Your task to perform on an android device: toggle sleep mode Image 0: 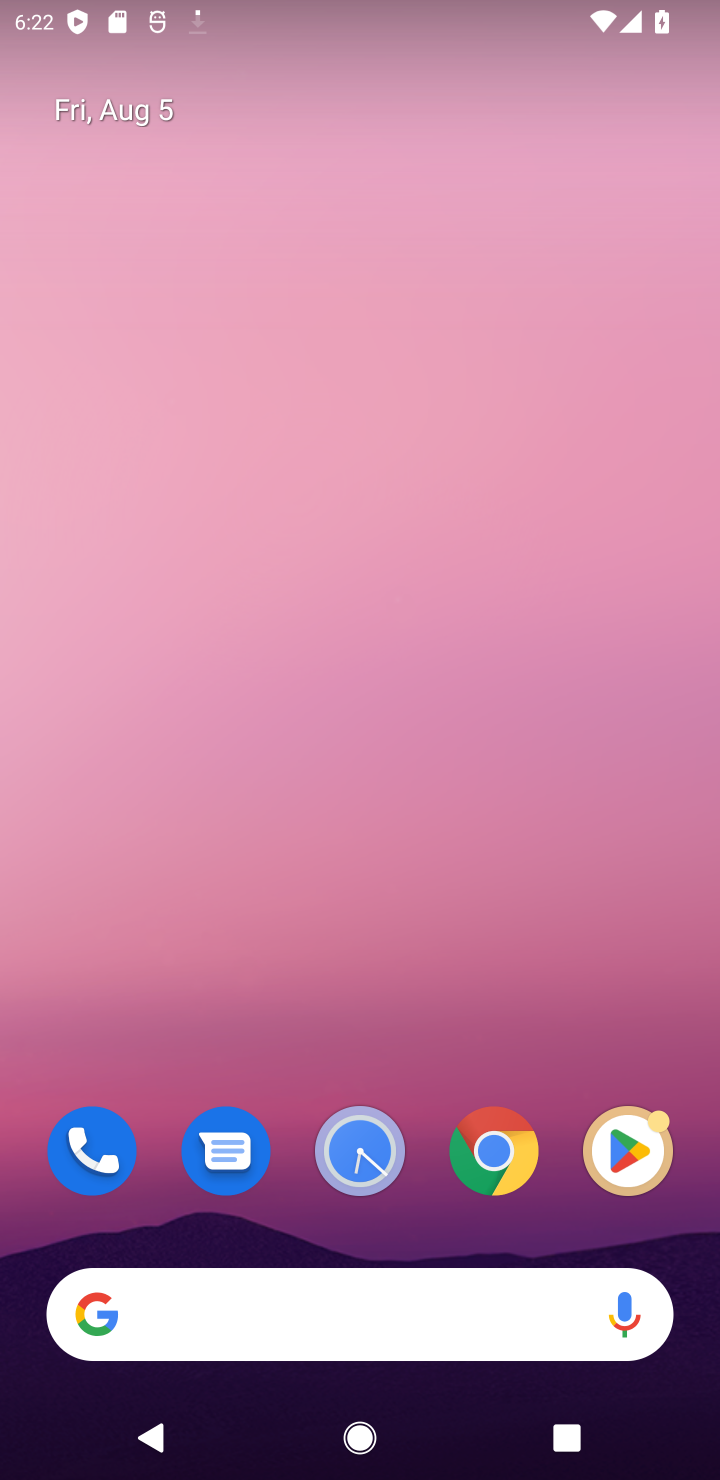
Step 0: drag from (361, 1269) to (587, 648)
Your task to perform on an android device: toggle sleep mode Image 1: 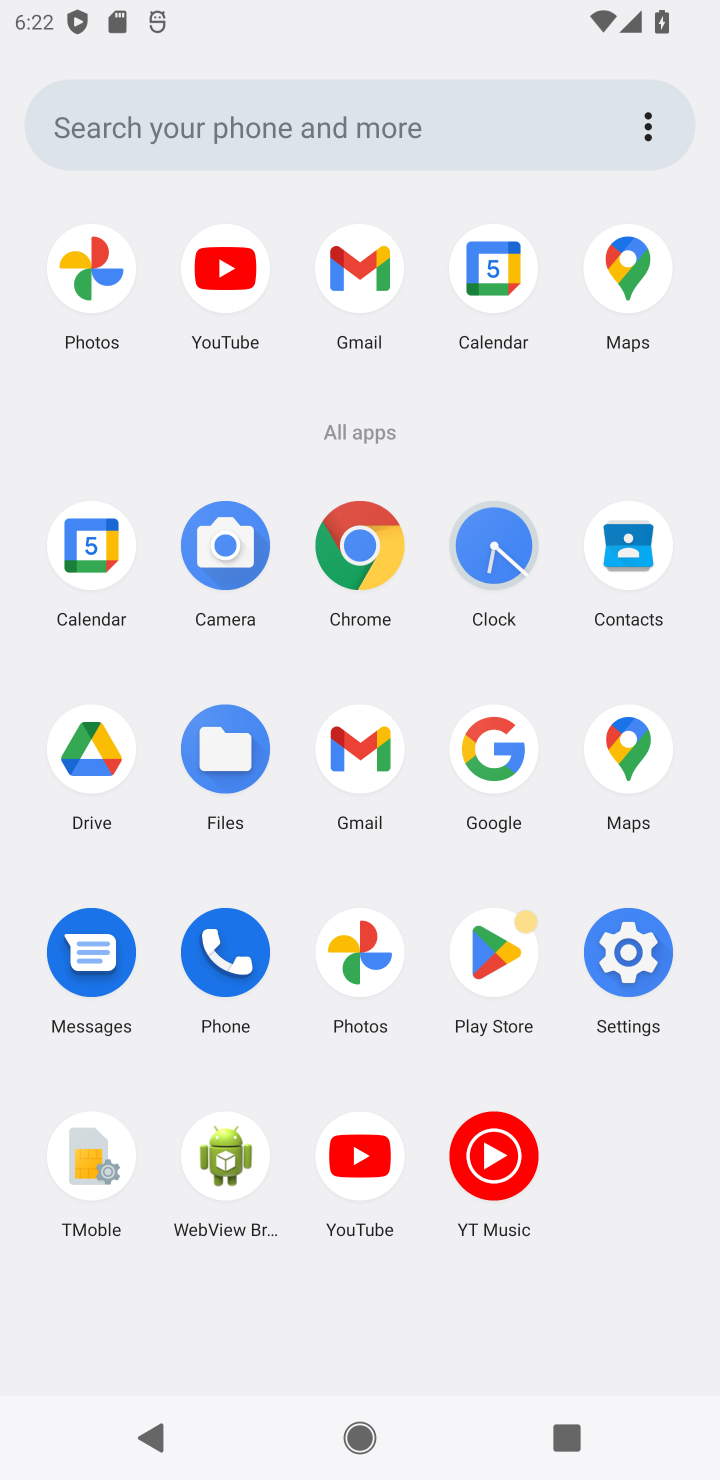
Step 1: click (640, 974)
Your task to perform on an android device: toggle sleep mode Image 2: 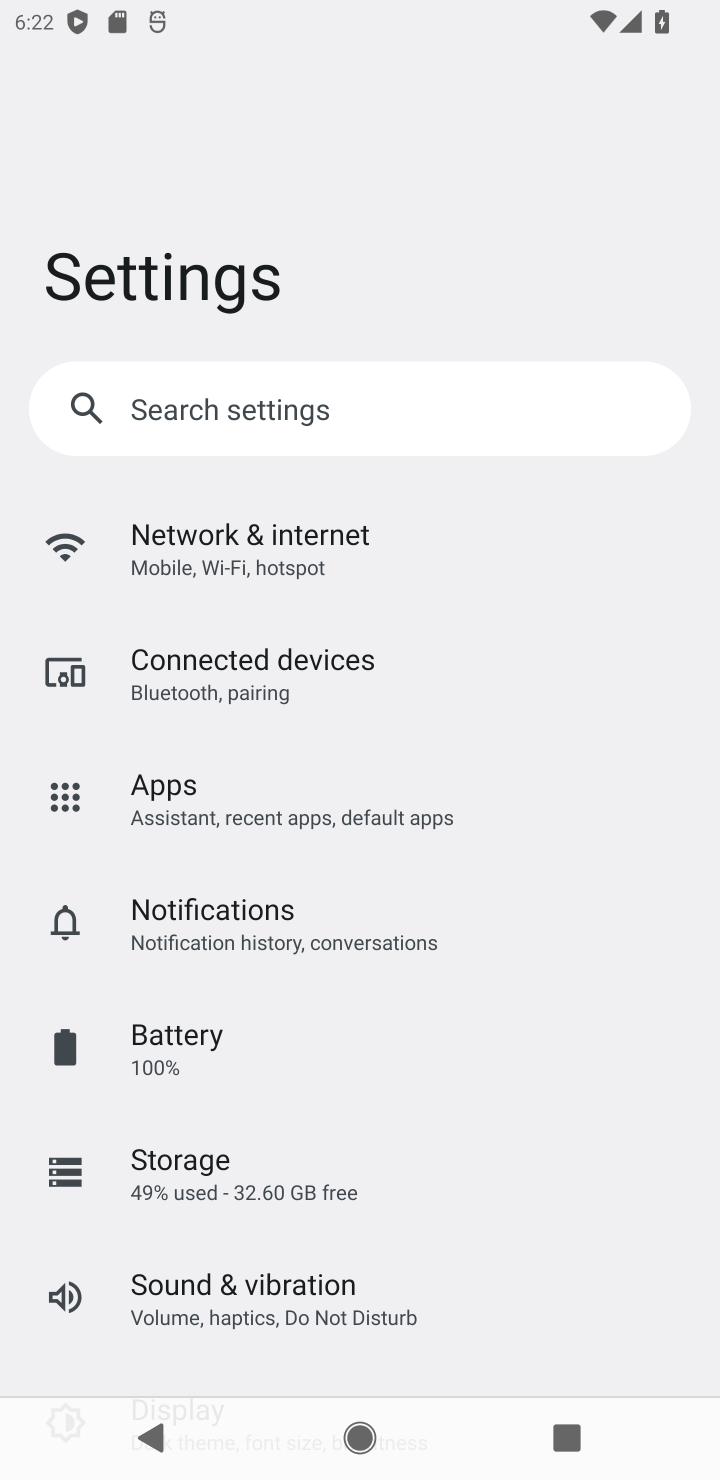
Step 2: drag from (350, 1052) to (332, 488)
Your task to perform on an android device: toggle sleep mode Image 3: 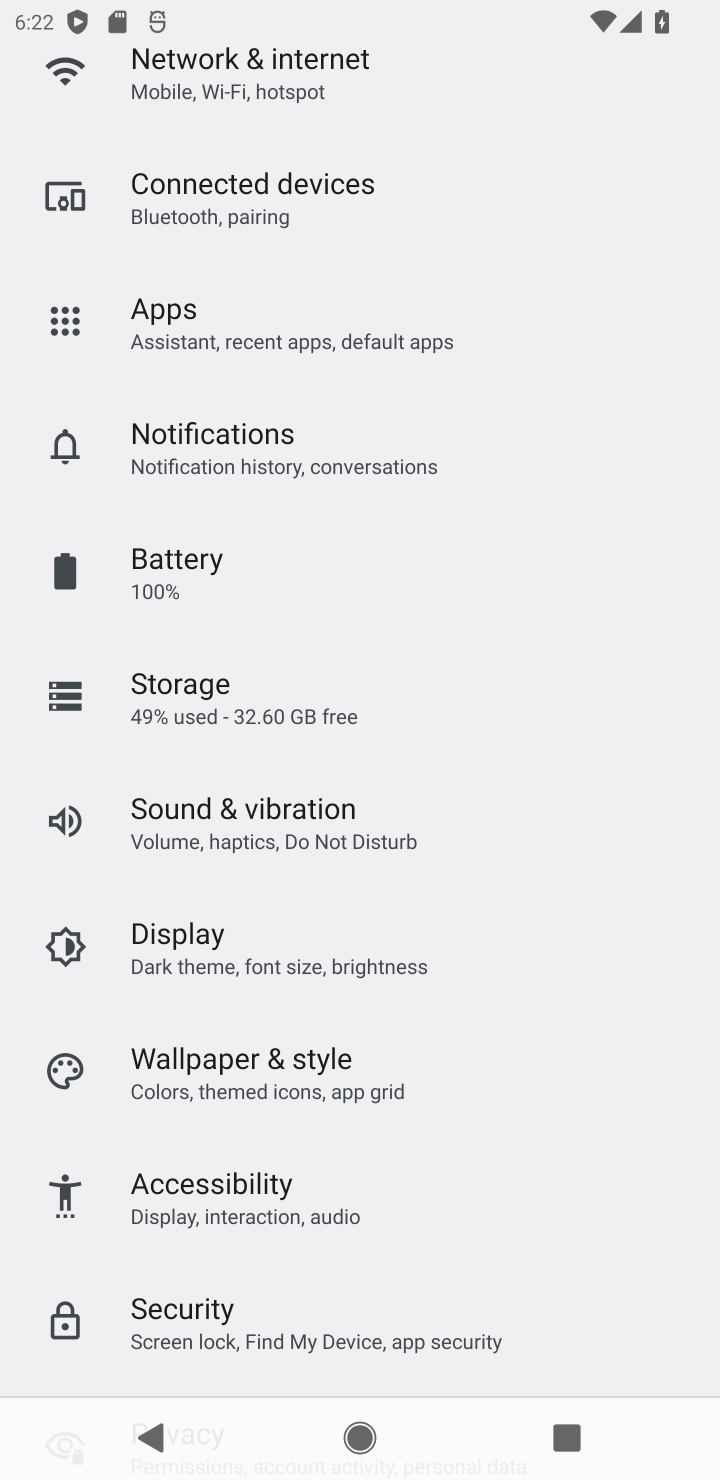
Step 3: click (203, 941)
Your task to perform on an android device: toggle sleep mode Image 4: 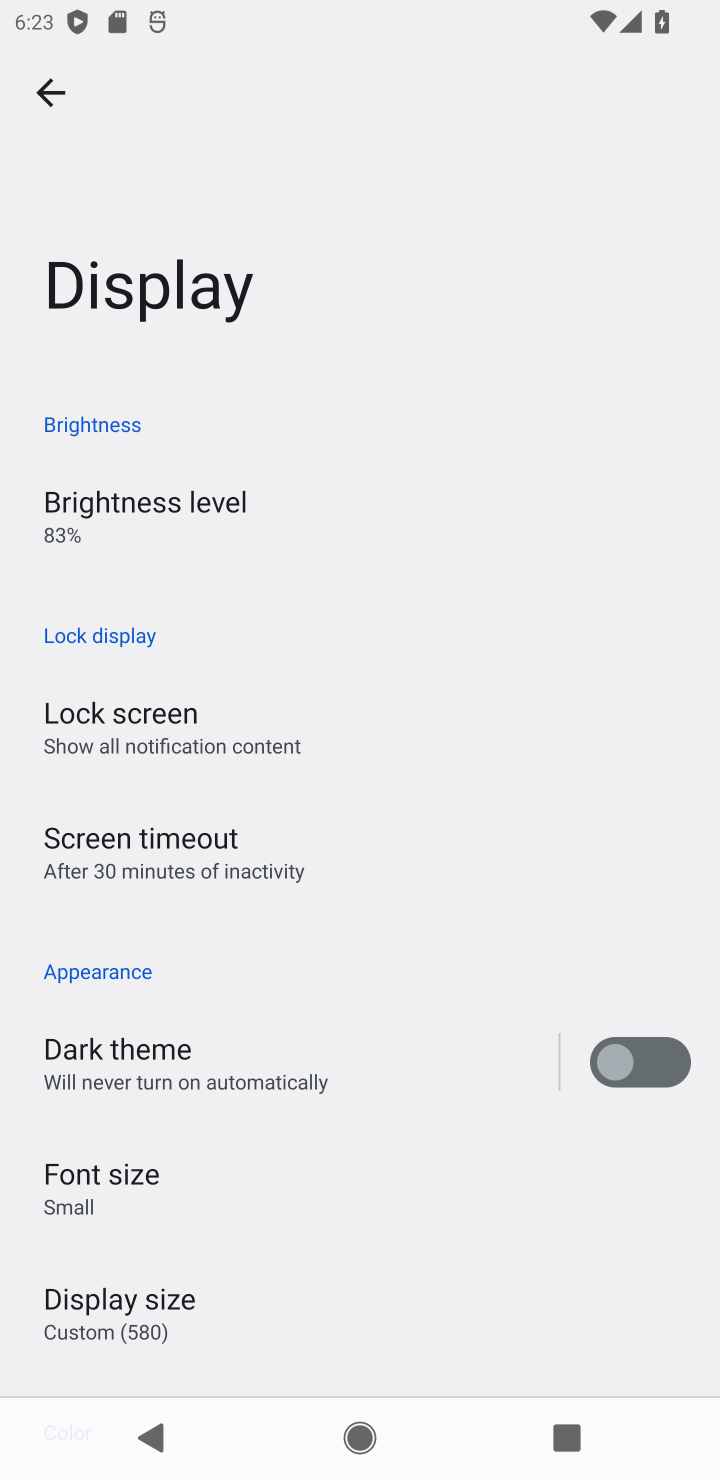
Step 4: task complete